Your task to perform on an android device: When is my next meeting? Image 0: 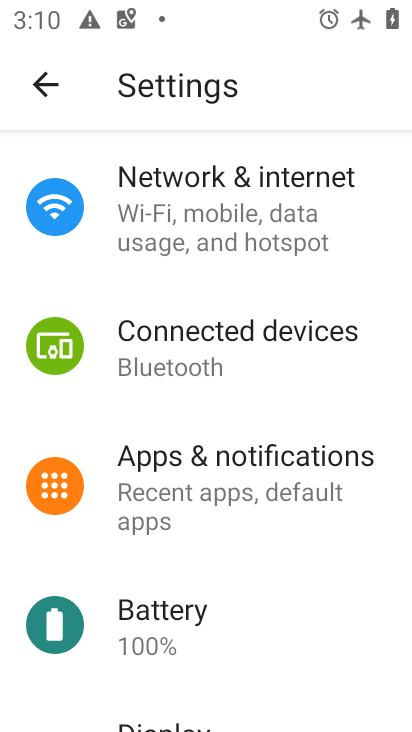
Step 0: press home button
Your task to perform on an android device: When is my next meeting? Image 1: 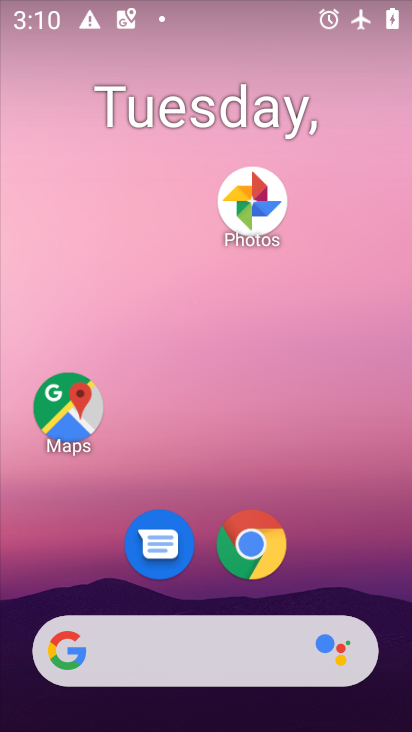
Step 1: drag from (354, 545) to (324, 86)
Your task to perform on an android device: When is my next meeting? Image 2: 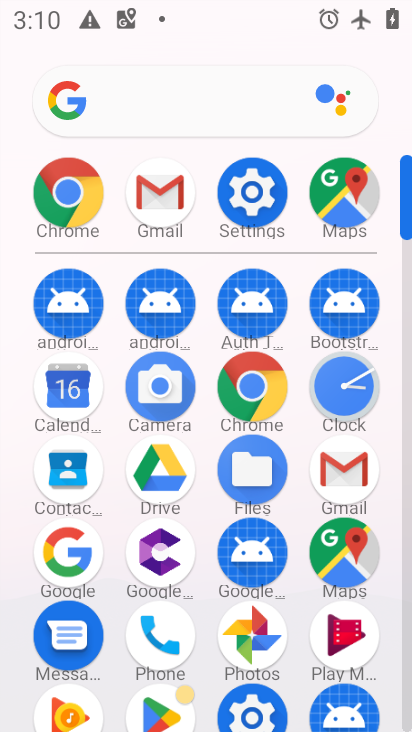
Step 2: click (86, 379)
Your task to perform on an android device: When is my next meeting? Image 3: 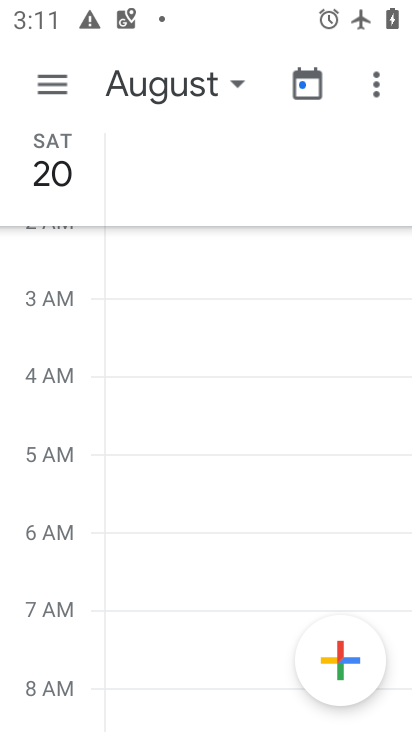
Step 3: click (51, 88)
Your task to perform on an android device: When is my next meeting? Image 4: 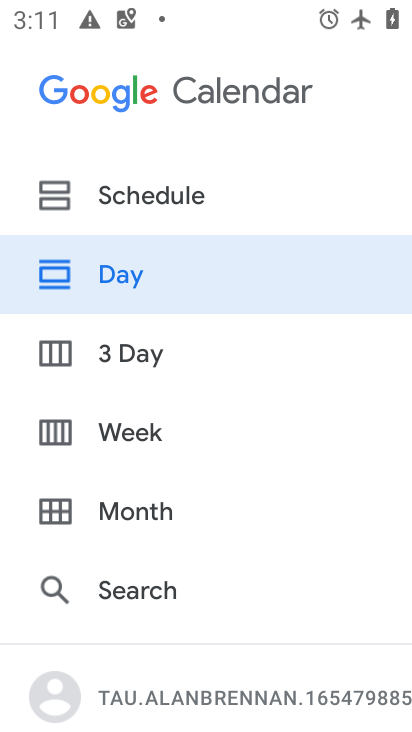
Step 4: click (125, 429)
Your task to perform on an android device: When is my next meeting? Image 5: 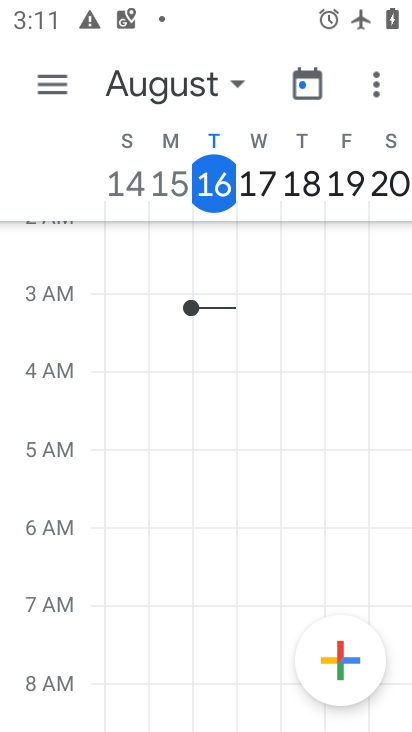
Step 5: task complete